Your task to perform on an android device: Open Google Maps and go to "Timeline" Image 0: 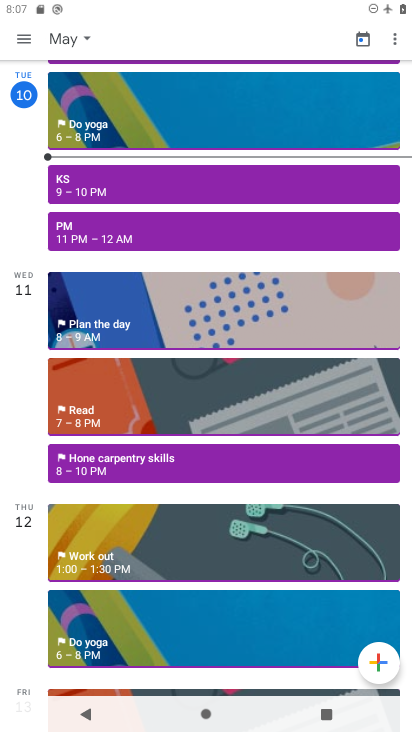
Step 0: press home button
Your task to perform on an android device: Open Google Maps and go to "Timeline" Image 1: 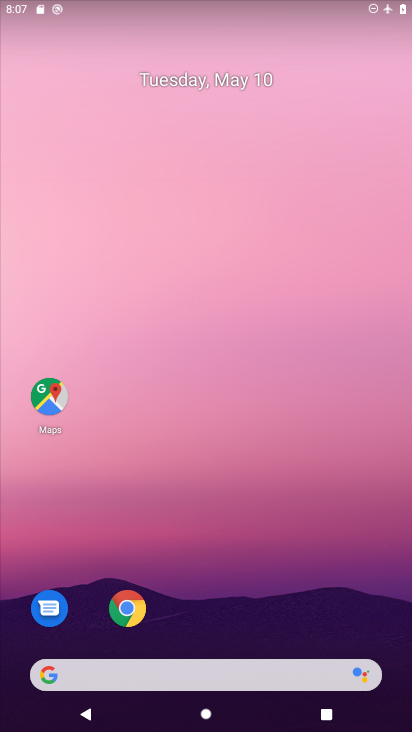
Step 1: click (49, 385)
Your task to perform on an android device: Open Google Maps and go to "Timeline" Image 2: 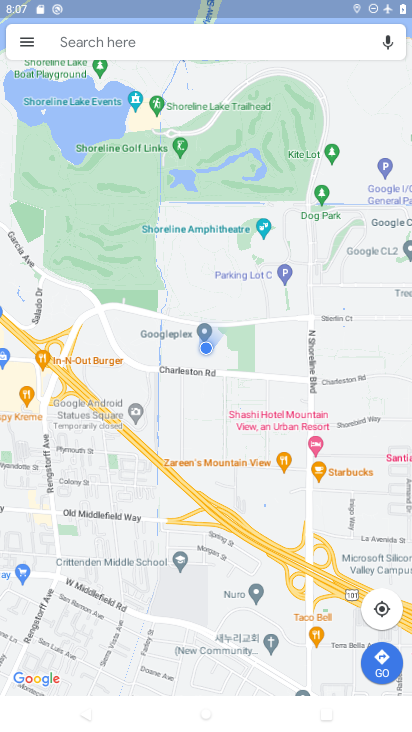
Step 2: click (17, 38)
Your task to perform on an android device: Open Google Maps and go to "Timeline" Image 3: 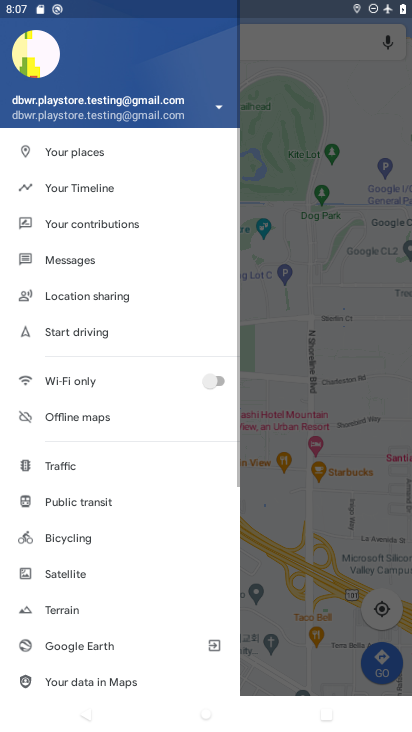
Step 3: click (78, 191)
Your task to perform on an android device: Open Google Maps and go to "Timeline" Image 4: 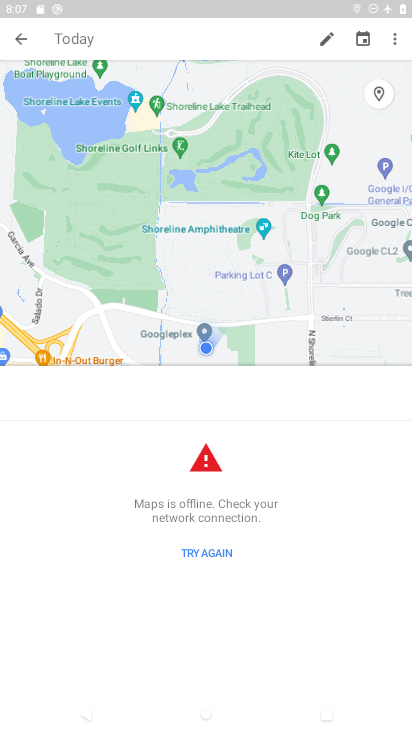
Step 4: click (220, 548)
Your task to perform on an android device: Open Google Maps and go to "Timeline" Image 5: 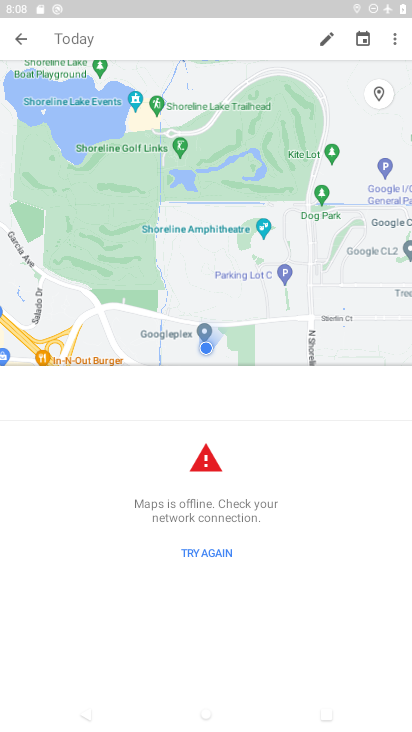
Step 5: task complete